Your task to perform on an android device: Open my contact list Image 0: 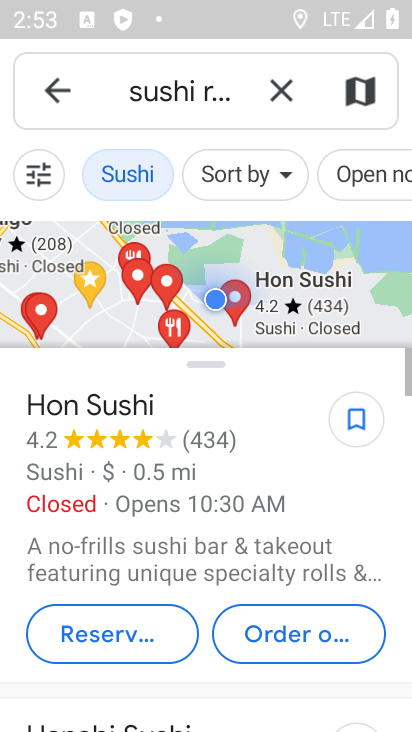
Step 0: drag from (216, 624) to (217, 4)
Your task to perform on an android device: Open my contact list Image 1: 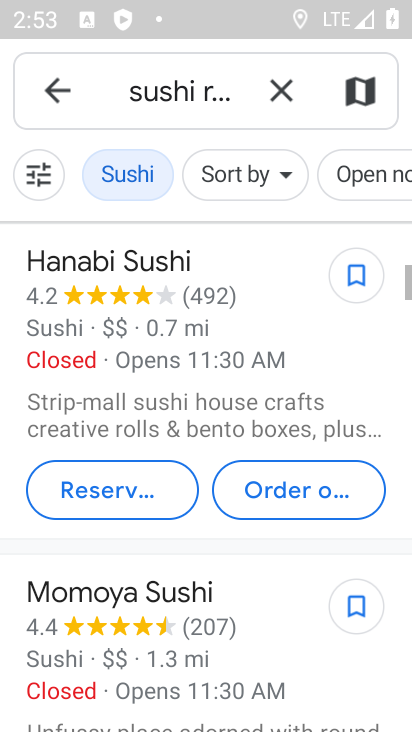
Step 1: press home button
Your task to perform on an android device: Open my contact list Image 2: 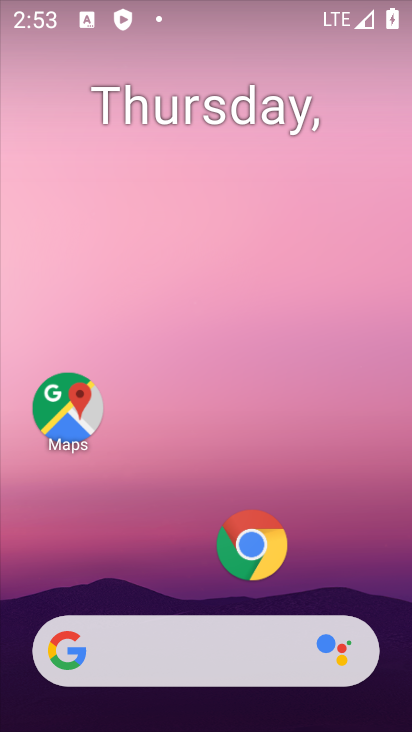
Step 2: drag from (235, 656) to (213, 34)
Your task to perform on an android device: Open my contact list Image 3: 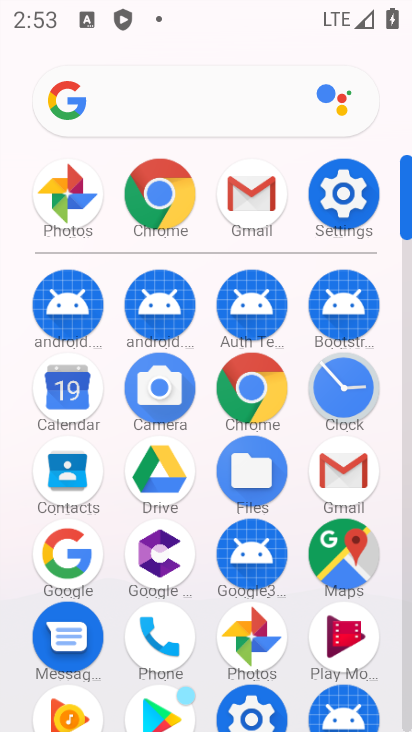
Step 3: click (72, 478)
Your task to perform on an android device: Open my contact list Image 4: 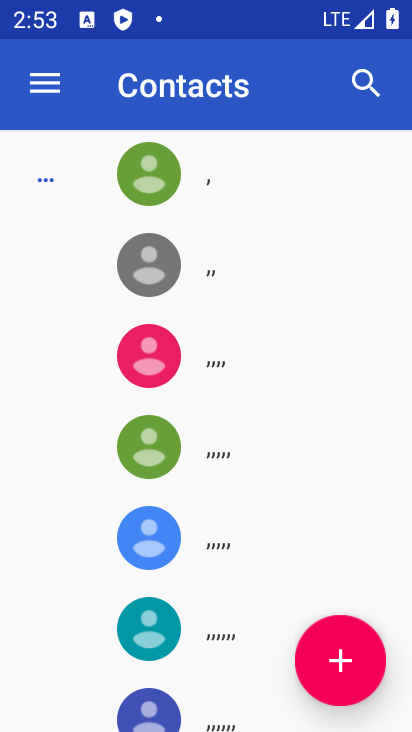
Step 4: task complete